Your task to perform on an android device: turn off smart reply in the gmail app Image 0: 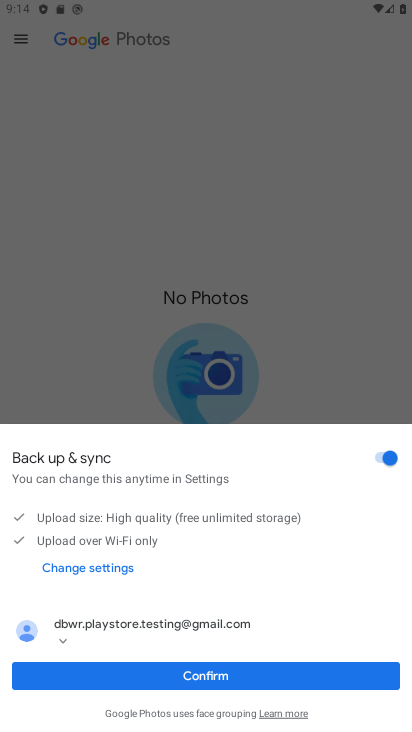
Step 0: press home button
Your task to perform on an android device: turn off smart reply in the gmail app Image 1: 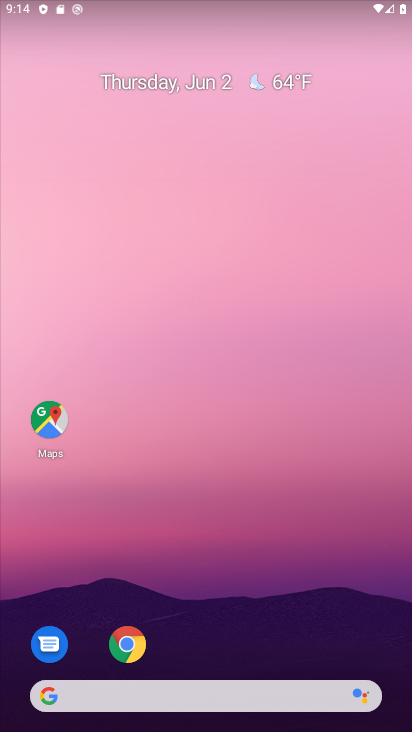
Step 1: drag from (328, 594) to (332, 457)
Your task to perform on an android device: turn off smart reply in the gmail app Image 2: 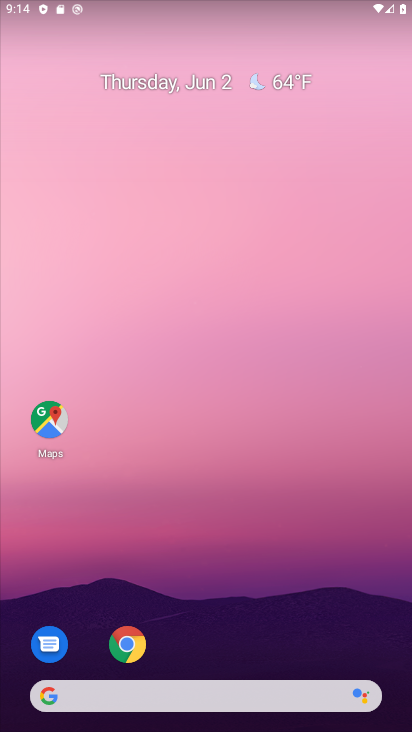
Step 2: drag from (332, 456) to (277, 29)
Your task to perform on an android device: turn off smart reply in the gmail app Image 3: 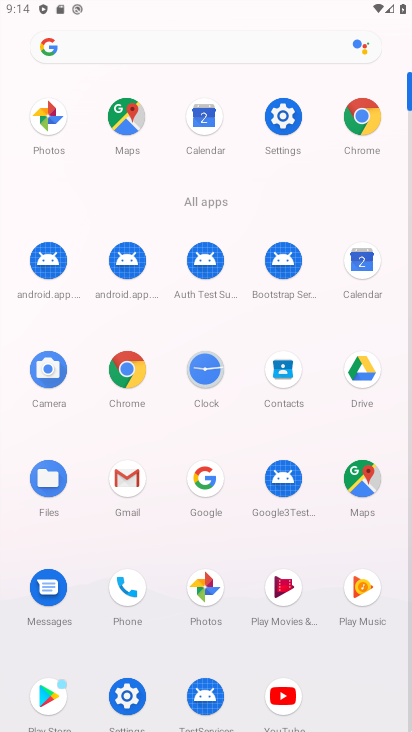
Step 3: click (118, 499)
Your task to perform on an android device: turn off smart reply in the gmail app Image 4: 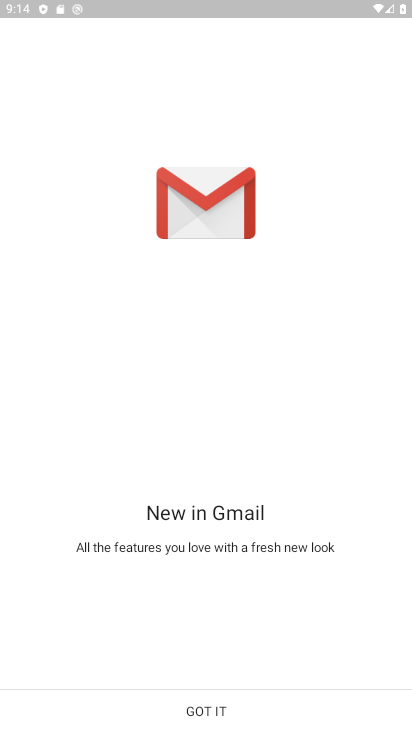
Step 4: click (201, 710)
Your task to perform on an android device: turn off smart reply in the gmail app Image 5: 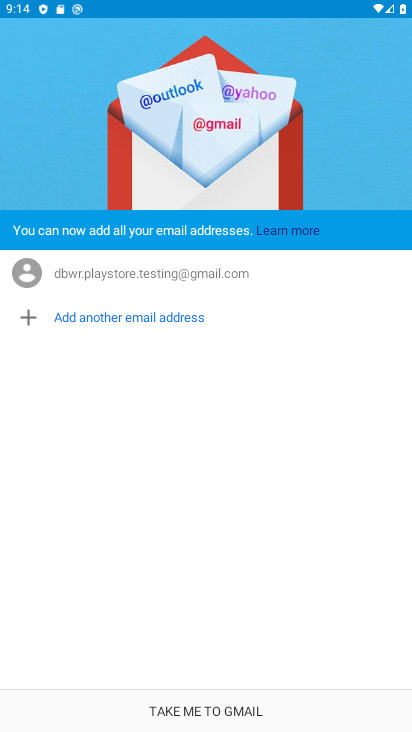
Step 5: click (201, 710)
Your task to perform on an android device: turn off smart reply in the gmail app Image 6: 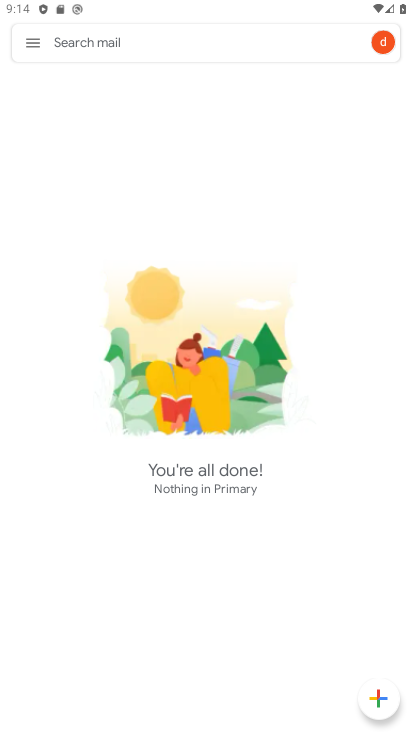
Step 6: click (36, 42)
Your task to perform on an android device: turn off smart reply in the gmail app Image 7: 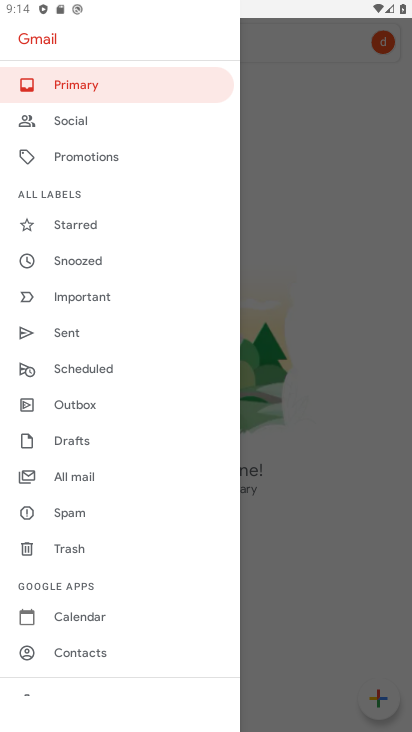
Step 7: drag from (122, 640) to (142, 0)
Your task to perform on an android device: turn off smart reply in the gmail app Image 8: 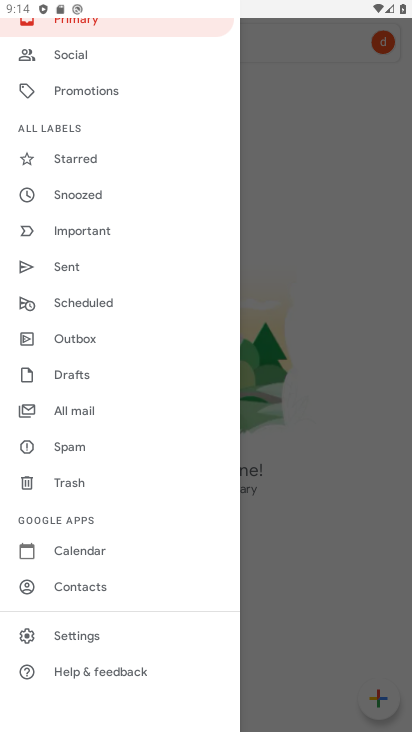
Step 8: click (79, 633)
Your task to perform on an android device: turn off smart reply in the gmail app Image 9: 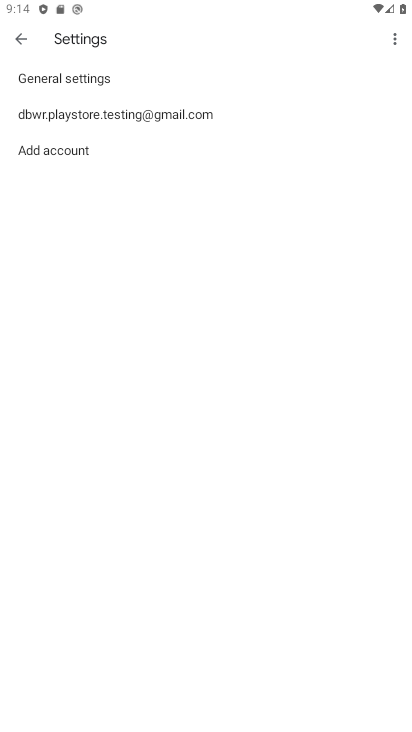
Step 9: click (160, 122)
Your task to perform on an android device: turn off smart reply in the gmail app Image 10: 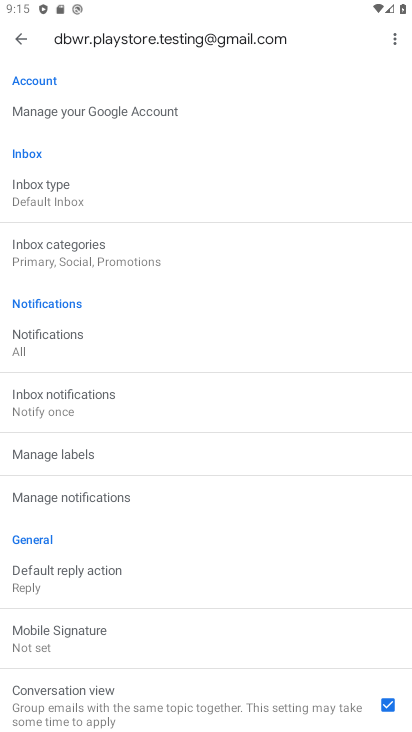
Step 10: drag from (143, 394) to (161, 164)
Your task to perform on an android device: turn off smart reply in the gmail app Image 11: 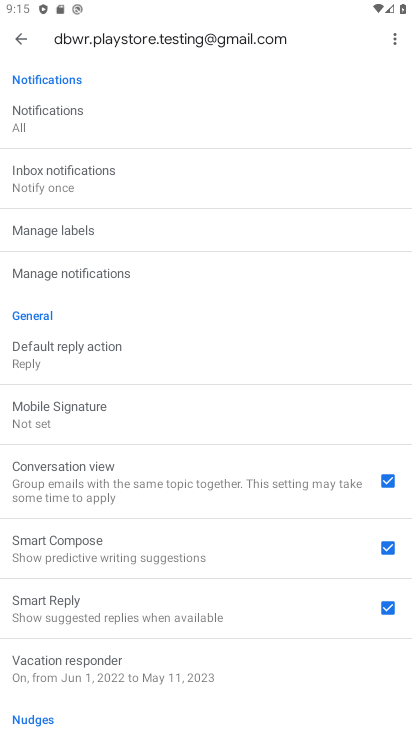
Step 11: click (128, 610)
Your task to perform on an android device: turn off smart reply in the gmail app Image 12: 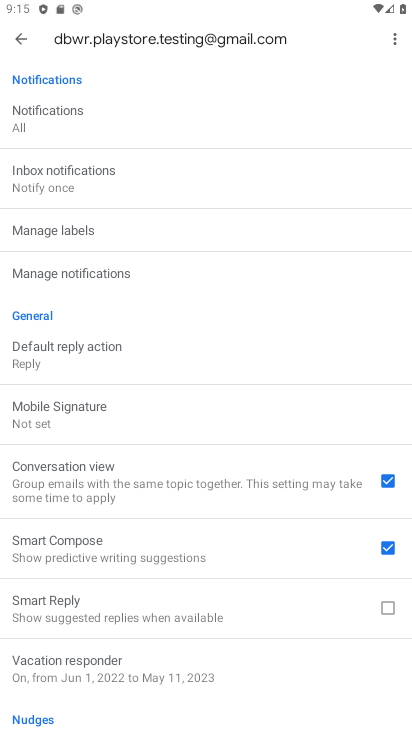
Step 12: task complete